Your task to perform on an android device: change notifications settings Image 0: 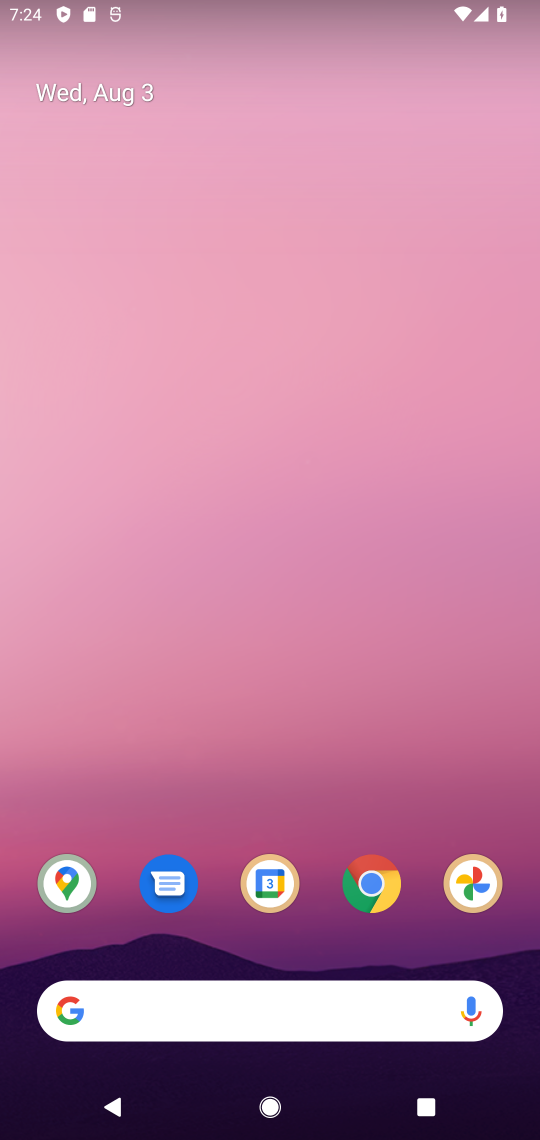
Step 0: drag from (393, 797) to (473, 9)
Your task to perform on an android device: change notifications settings Image 1: 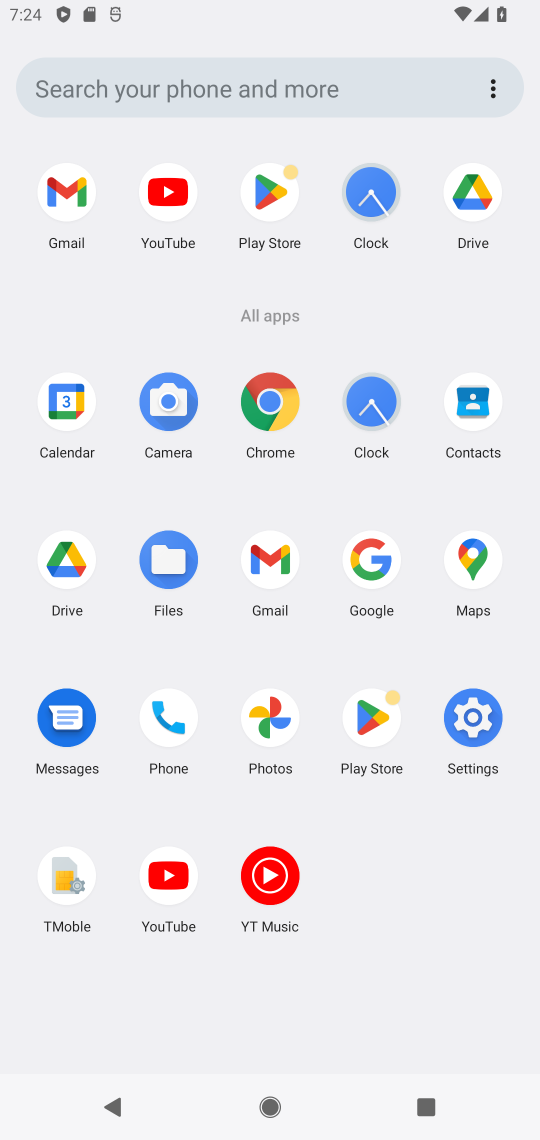
Step 1: click (471, 754)
Your task to perform on an android device: change notifications settings Image 2: 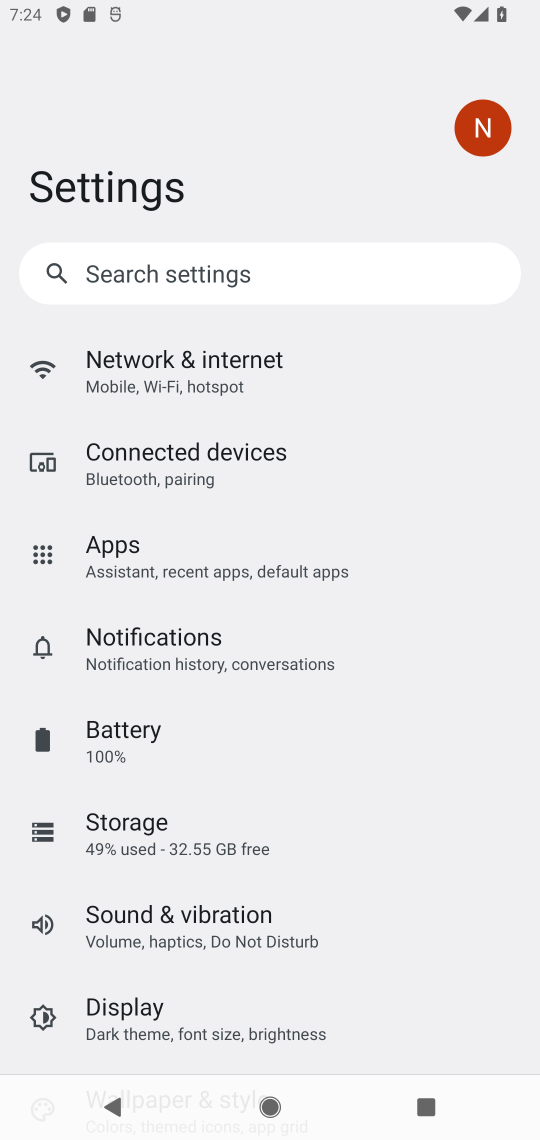
Step 2: click (368, 673)
Your task to perform on an android device: change notifications settings Image 3: 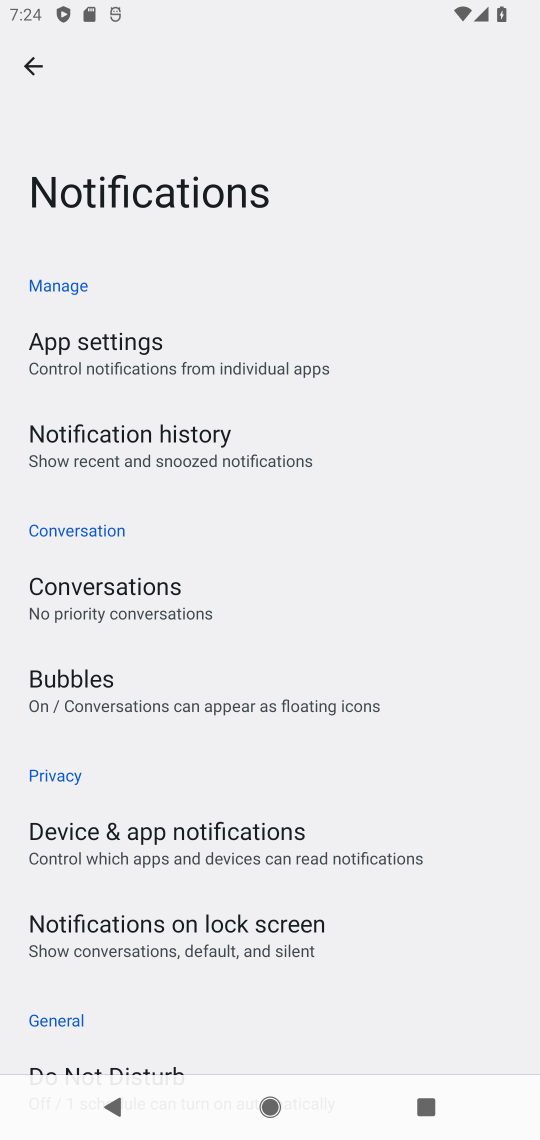
Step 3: drag from (282, 936) to (239, 343)
Your task to perform on an android device: change notifications settings Image 4: 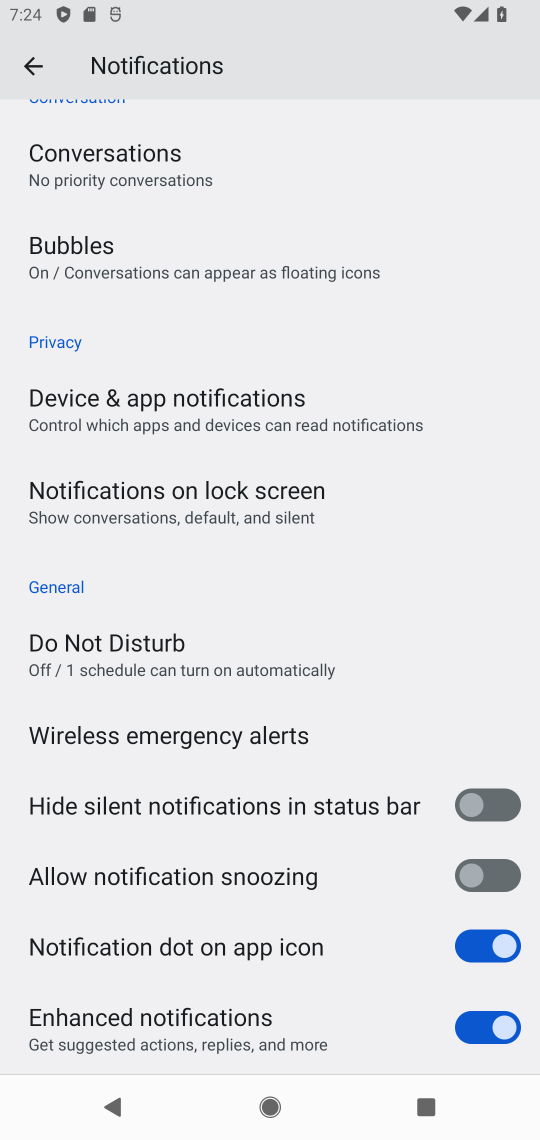
Step 4: click (494, 820)
Your task to perform on an android device: change notifications settings Image 5: 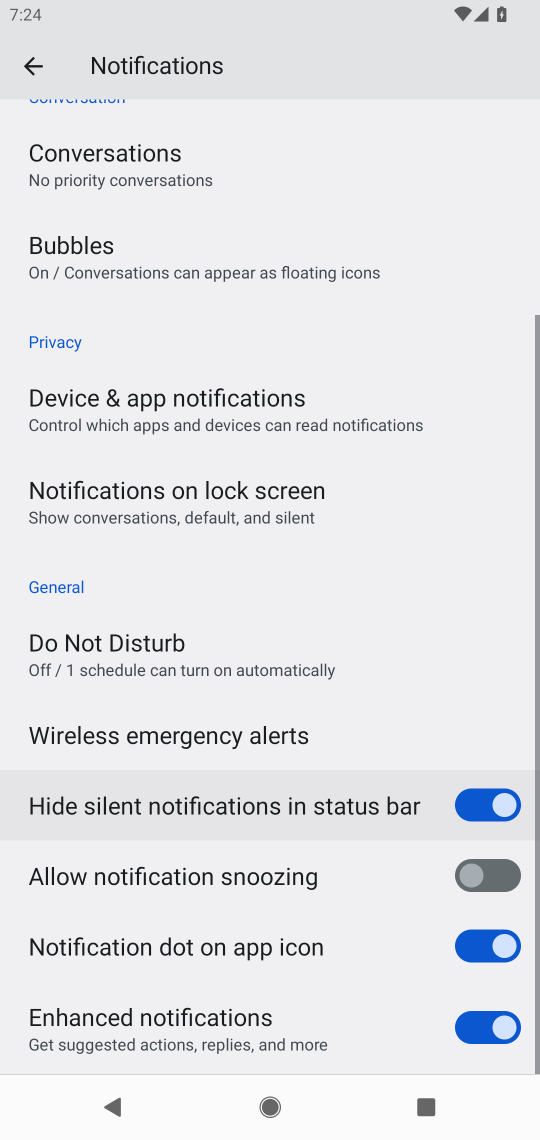
Step 5: click (501, 888)
Your task to perform on an android device: change notifications settings Image 6: 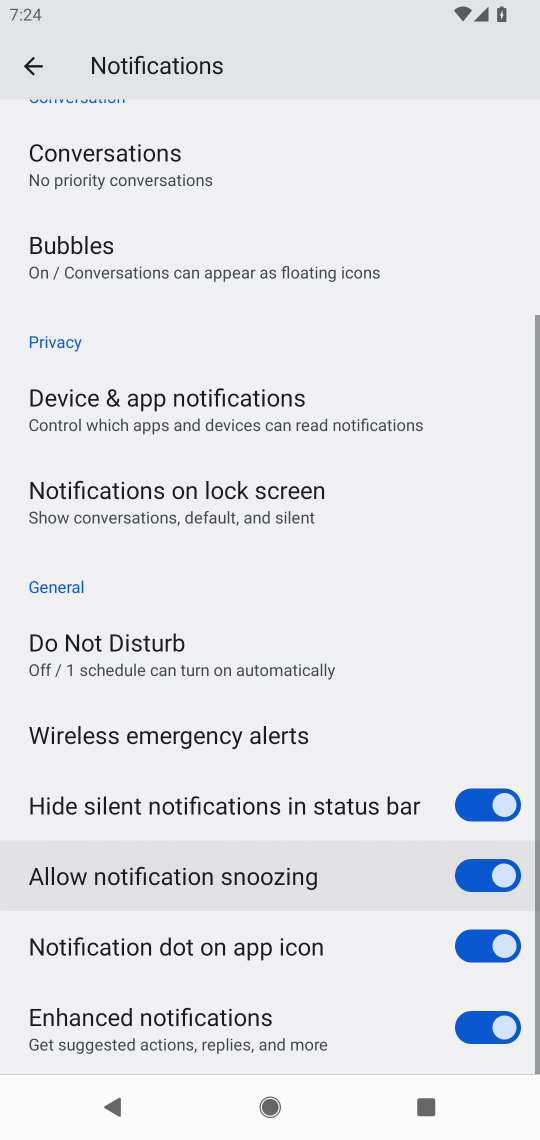
Step 6: click (490, 942)
Your task to perform on an android device: change notifications settings Image 7: 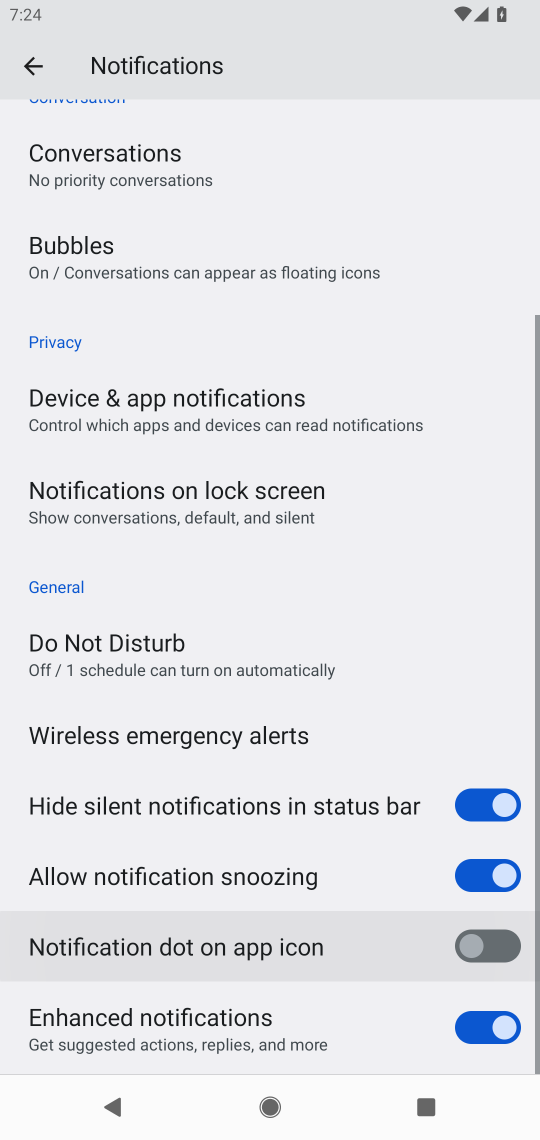
Step 7: click (490, 1024)
Your task to perform on an android device: change notifications settings Image 8: 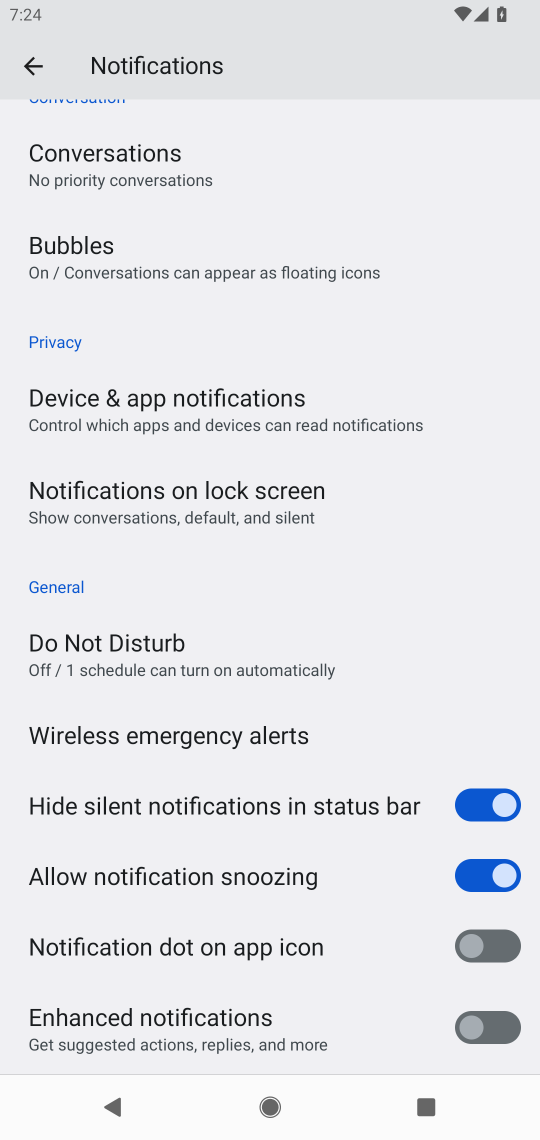
Step 8: task complete